Your task to perform on an android device: move a message to another label in the gmail app Image 0: 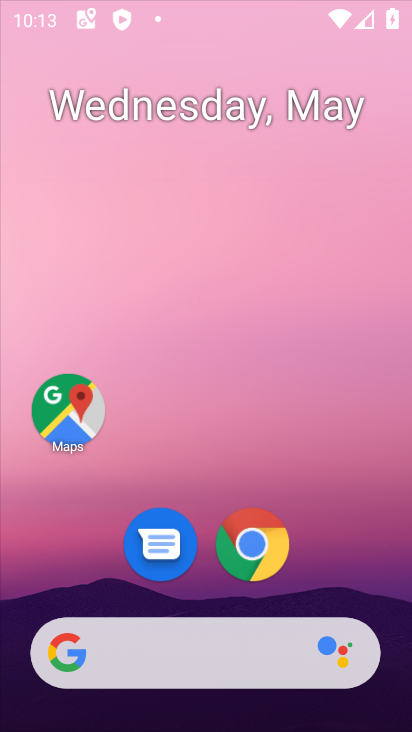
Step 0: drag from (307, 411) to (296, 187)
Your task to perform on an android device: move a message to another label in the gmail app Image 1: 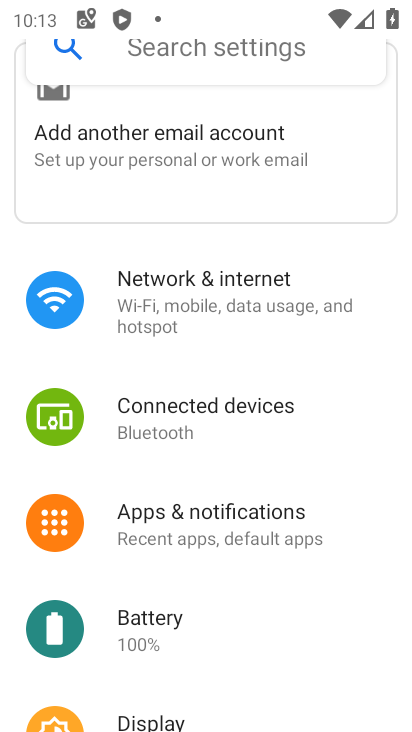
Step 1: press home button
Your task to perform on an android device: move a message to another label in the gmail app Image 2: 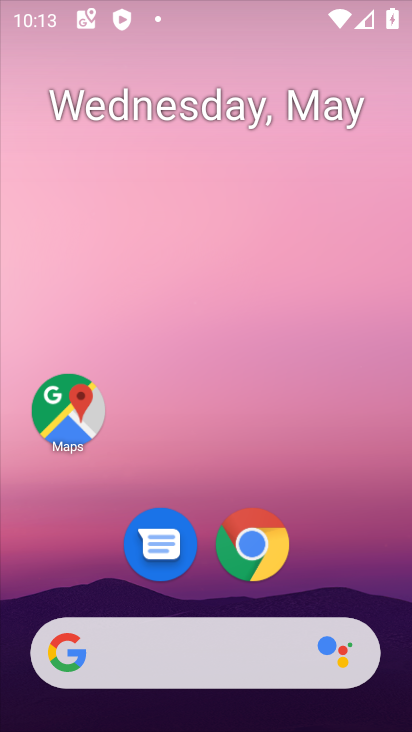
Step 2: drag from (267, 665) to (252, 243)
Your task to perform on an android device: move a message to another label in the gmail app Image 3: 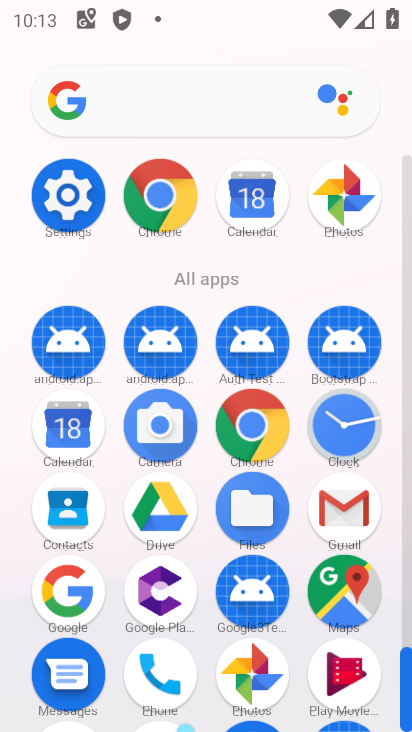
Step 3: click (355, 504)
Your task to perform on an android device: move a message to another label in the gmail app Image 4: 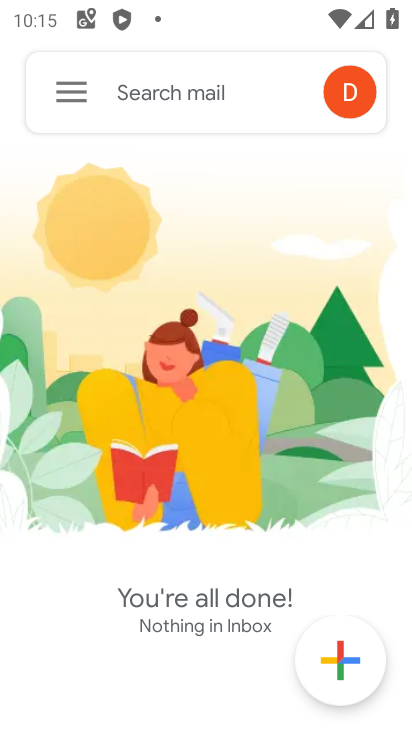
Step 4: task complete